Your task to perform on an android device: search for starred emails in the gmail app Image 0: 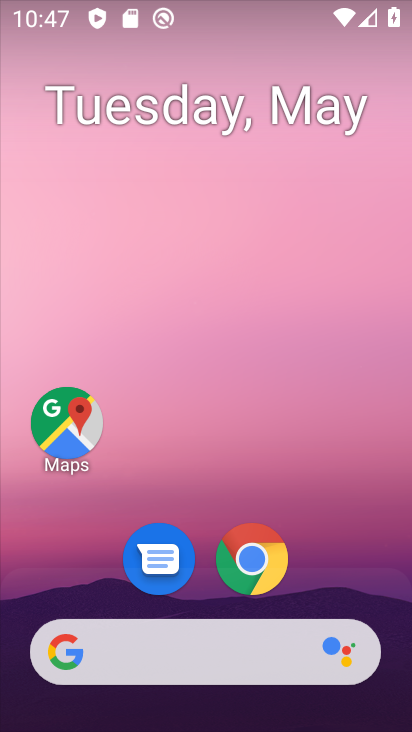
Step 0: drag from (364, 599) to (319, 10)
Your task to perform on an android device: search for starred emails in the gmail app Image 1: 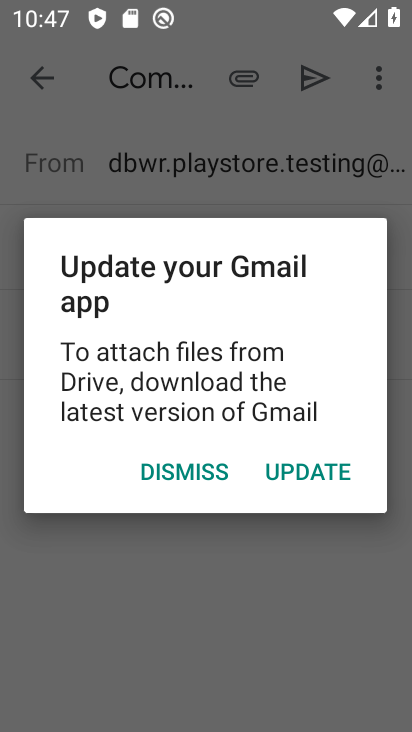
Step 1: press home button
Your task to perform on an android device: search for starred emails in the gmail app Image 2: 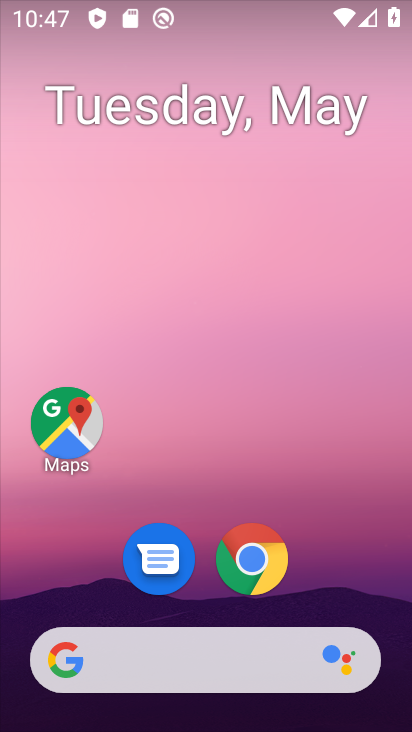
Step 2: drag from (361, 576) to (247, 122)
Your task to perform on an android device: search for starred emails in the gmail app Image 3: 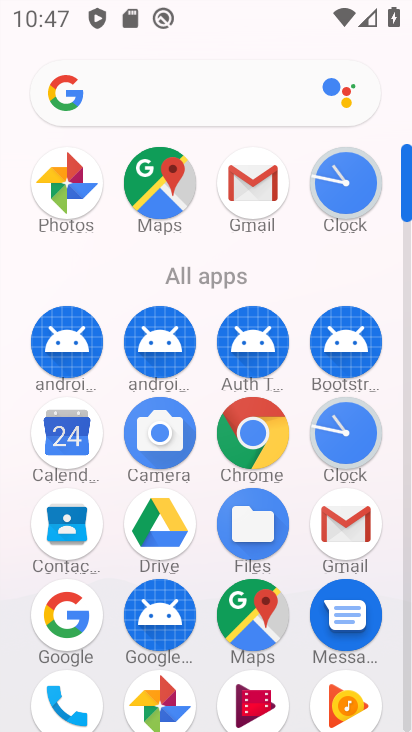
Step 3: click (251, 161)
Your task to perform on an android device: search for starred emails in the gmail app Image 4: 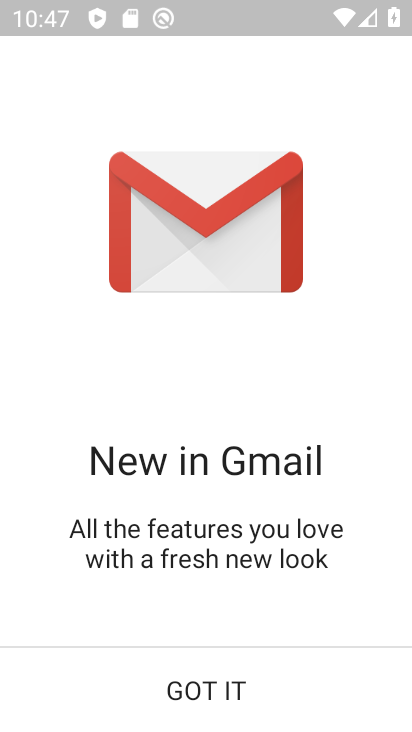
Step 4: click (210, 693)
Your task to perform on an android device: search for starred emails in the gmail app Image 5: 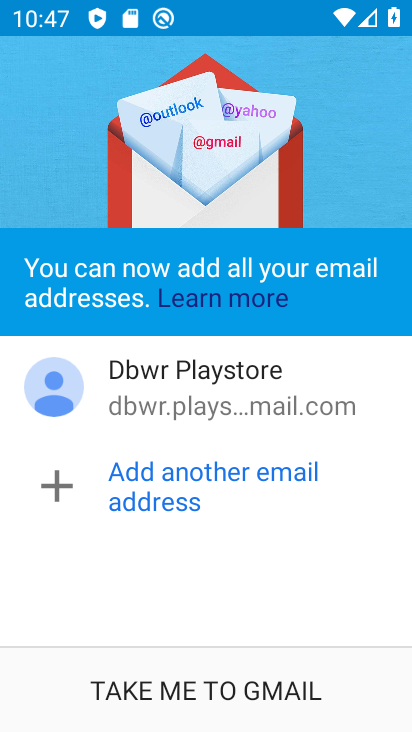
Step 5: click (210, 693)
Your task to perform on an android device: search for starred emails in the gmail app Image 6: 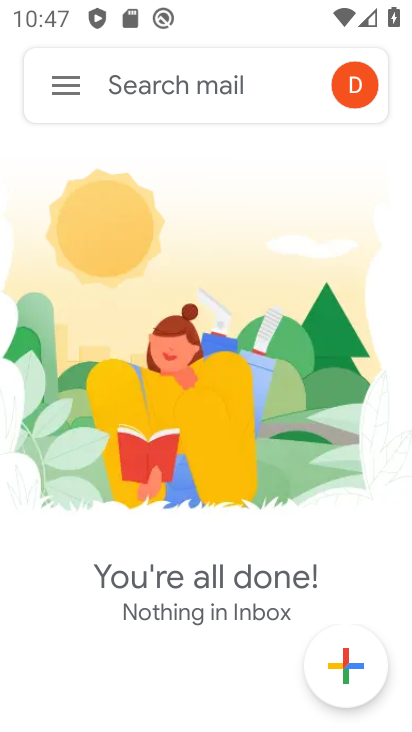
Step 6: click (75, 89)
Your task to perform on an android device: search for starred emails in the gmail app Image 7: 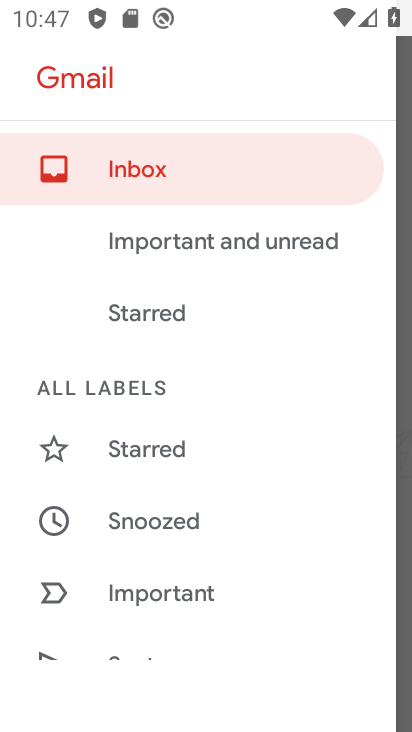
Step 7: click (187, 435)
Your task to perform on an android device: search for starred emails in the gmail app Image 8: 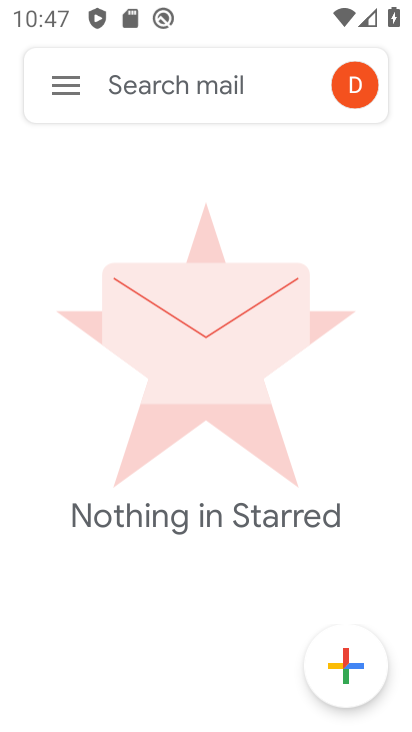
Step 8: task complete